Your task to perform on an android device: Open Google Chrome and click the shortcut for Amazon.com Image 0: 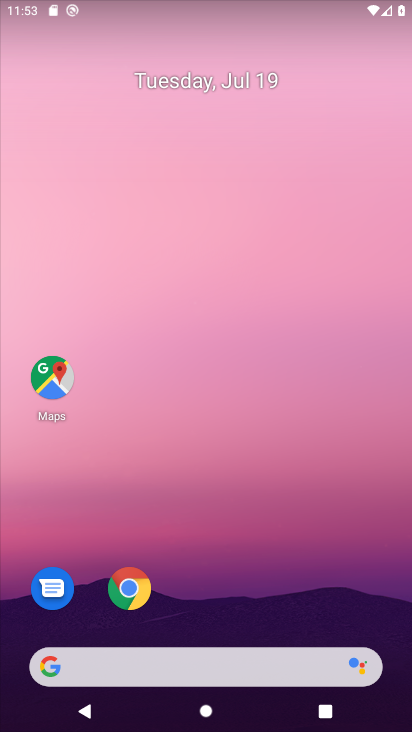
Step 0: click (130, 579)
Your task to perform on an android device: Open Google Chrome and click the shortcut for Amazon.com Image 1: 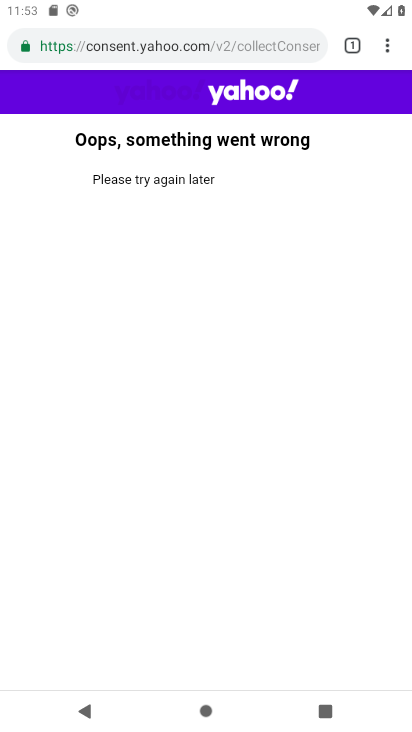
Step 1: click (386, 47)
Your task to perform on an android device: Open Google Chrome and click the shortcut for Amazon.com Image 2: 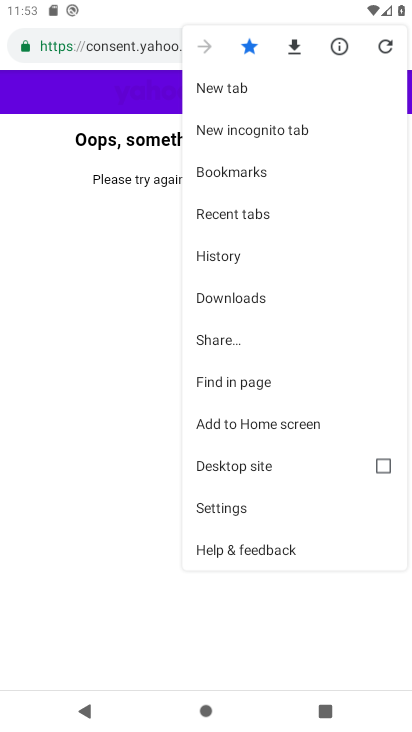
Step 2: click (138, 189)
Your task to perform on an android device: Open Google Chrome and click the shortcut for Amazon.com Image 3: 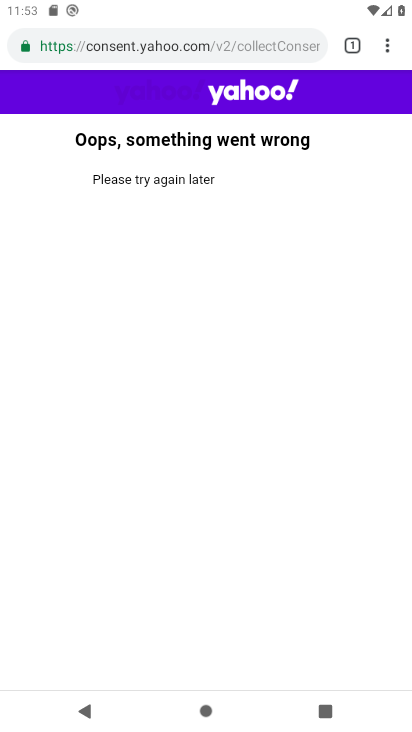
Step 3: click (383, 41)
Your task to perform on an android device: Open Google Chrome and click the shortcut for Amazon.com Image 4: 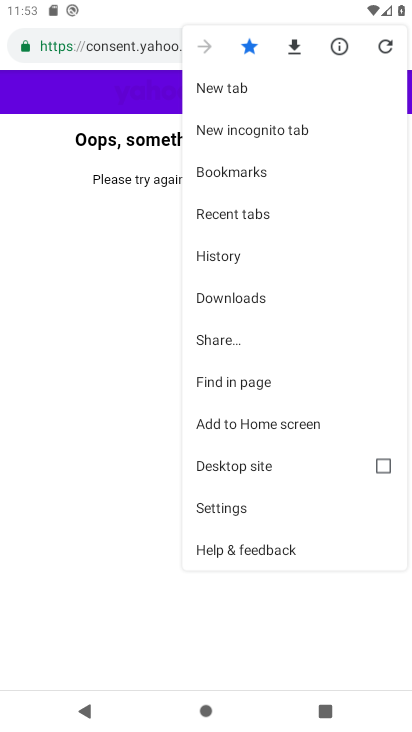
Step 4: click (241, 93)
Your task to perform on an android device: Open Google Chrome and click the shortcut for Amazon.com Image 5: 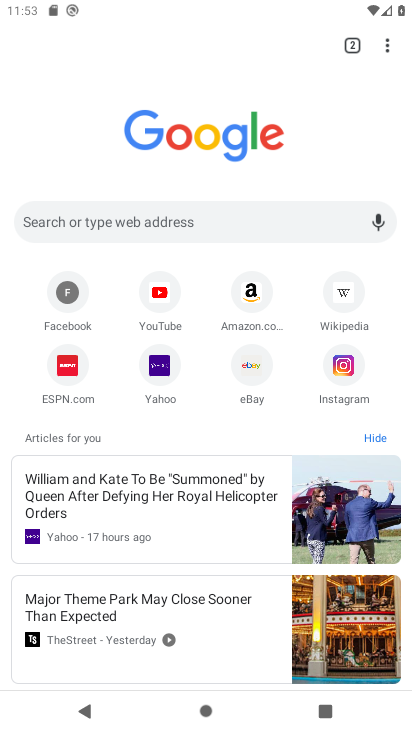
Step 5: click (253, 299)
Your task to perform on an android device: Open Google Chrome and click the shortcut for Amazon.com Image 6: 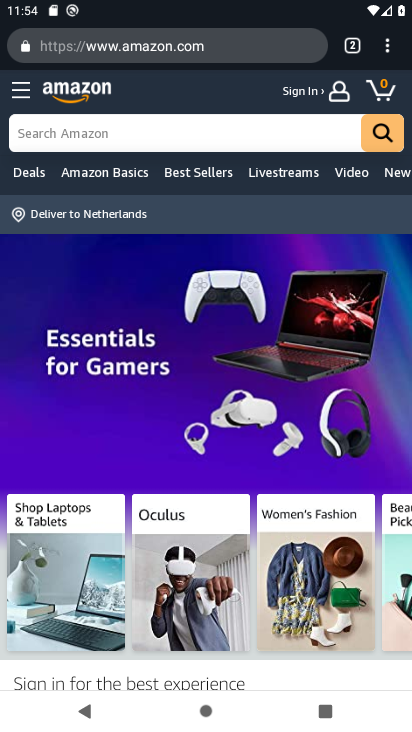
Step 6: task complete